Your task to perform on an android device: Go to sound settings Image 0: 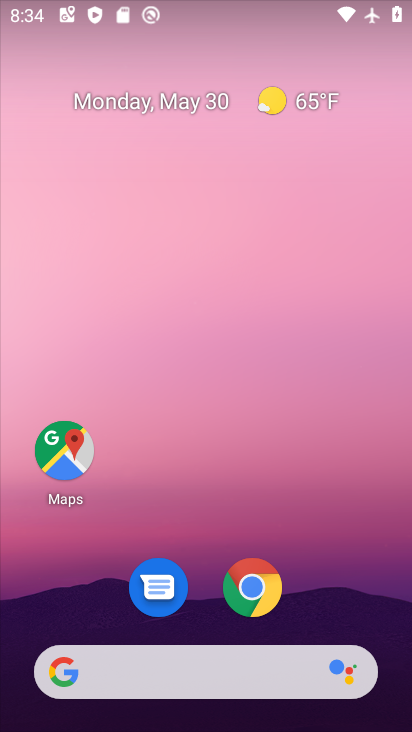
Step 0: press home button
Your task to perform on an android device: Go to sound settings Image 1: 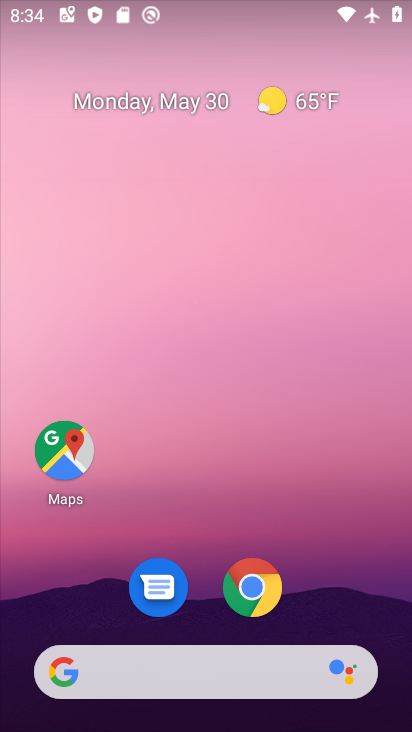
Step 1: drag from (201, 675) to (352, 73)
Your task to perform on an android device: Go to sound settings Image 2: 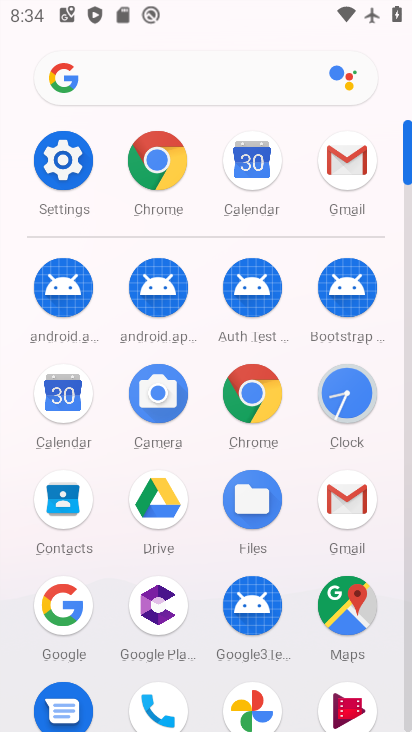
Step 2: click (66, 164)
Your task to perform on an android device: Go to sound settings Image 3: 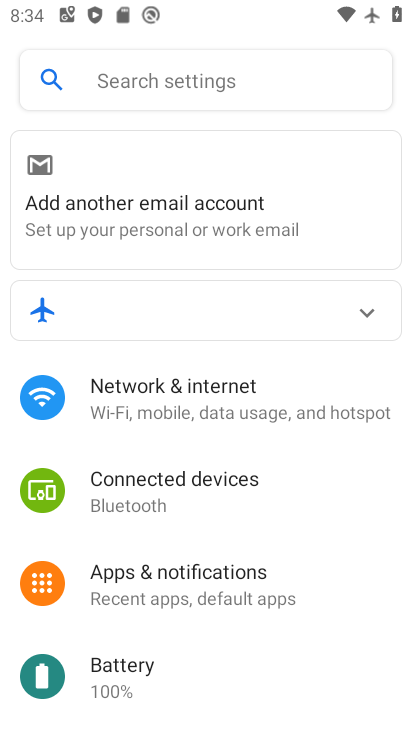
Step 3: drag from (250, 662) to (344, 178)
Your task to perform on an android device: Go to sound settings Image 4: 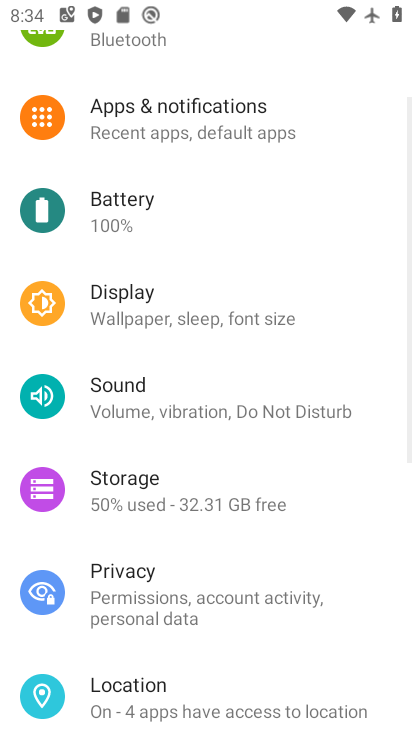
Step 4: click (129, 416)
Your task to perform on an android device: Go to sound settings Image 5: 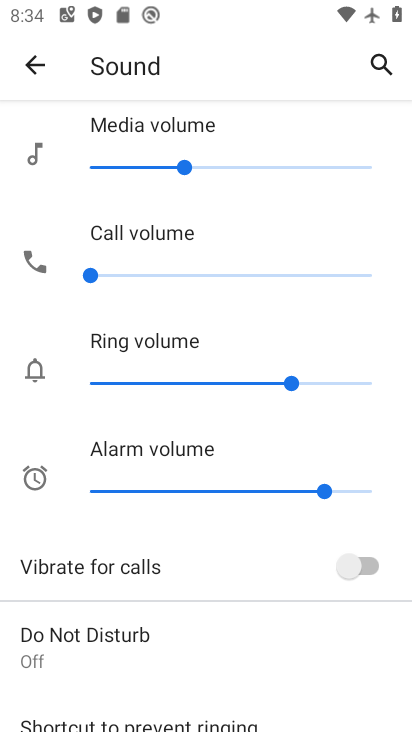
Step 5: task complete